Your task to perform on an android device: Go to display settings Image 0: 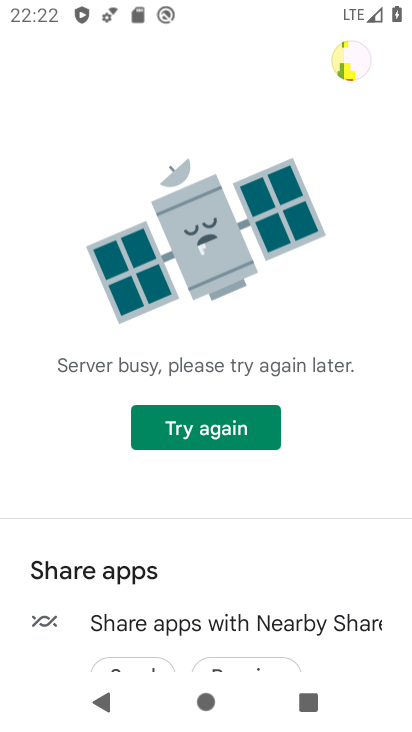
Step 0: press home button
Your task to perform on an android device: Go to display settings Image 1: 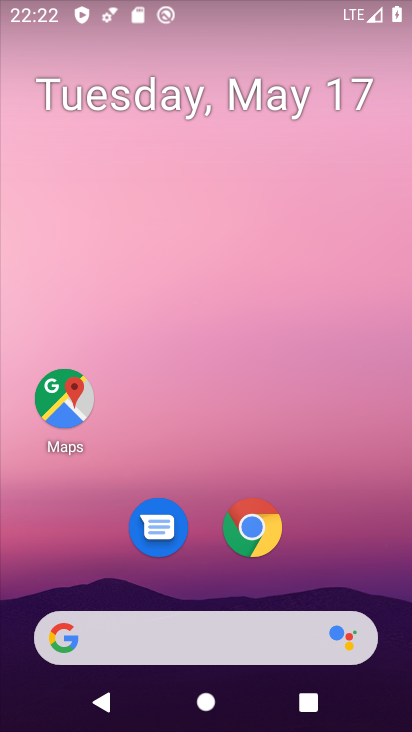
Step 1: drag from (82, 596) to (220, 79)
Your task to perform on an android device: Go to display settings Image 2: 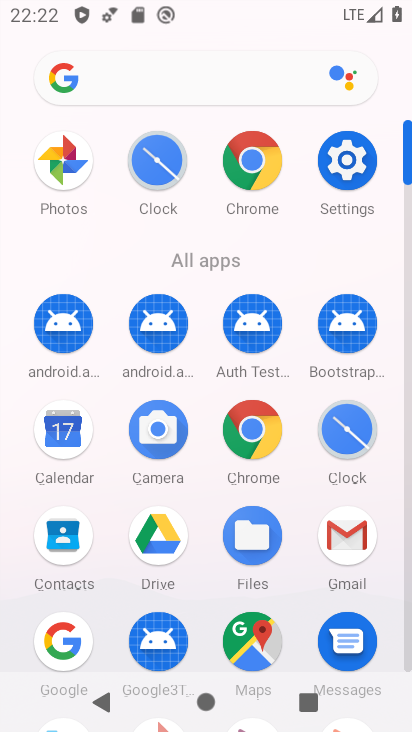
Step 2: drag from (196, 572) to (249, 311)
Your task to perform on an android device: Go to display settings Image 3: 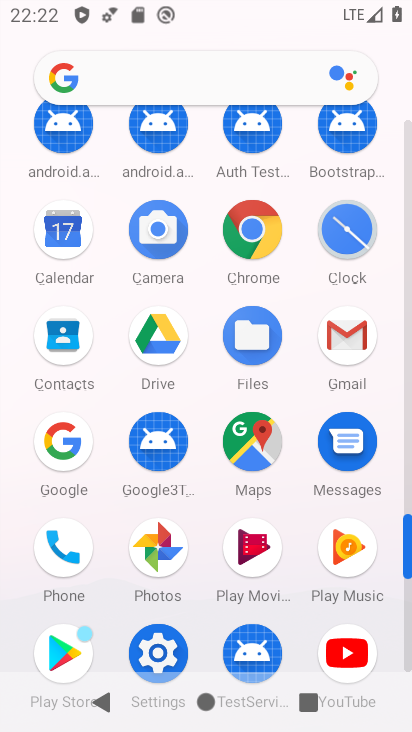
Step 3: click (165, 649)
Your task to perform on an android device: Go to display settings Image 4: 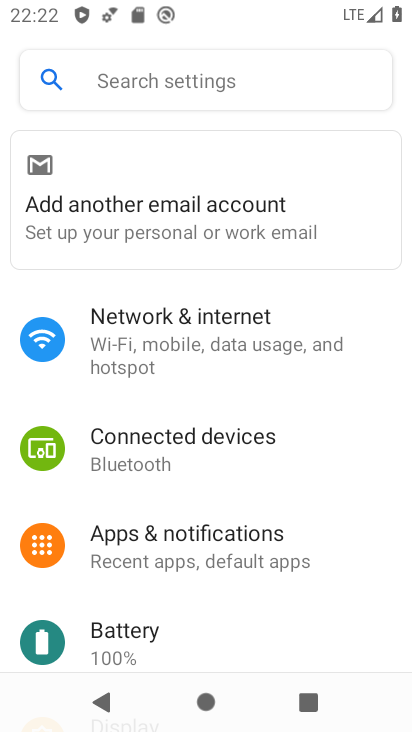
Step 4: drag from (187, 617) to (281, 307)
Your task to perform on an android device: Go to display settings Image 5: 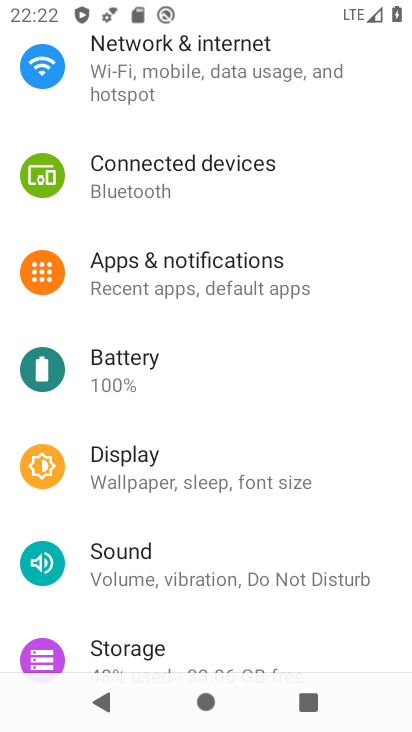
Step 5: click (169, 465)
Your task to perform on an android device: Go to display settings Image 6: 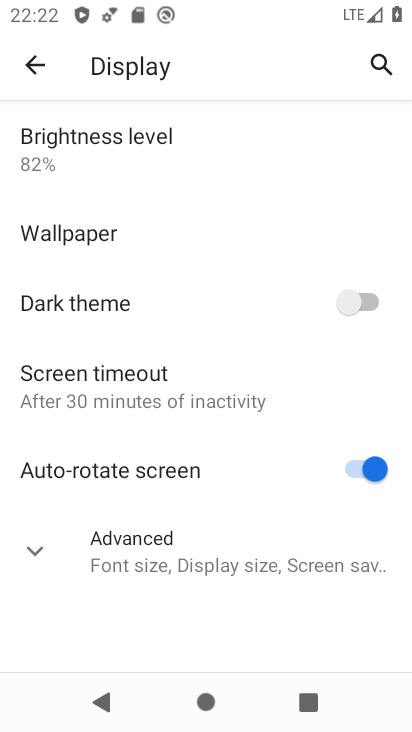
Step 6: task complete